Your task to perform on an android device: stop showing notifications on the lock screen Image 0: 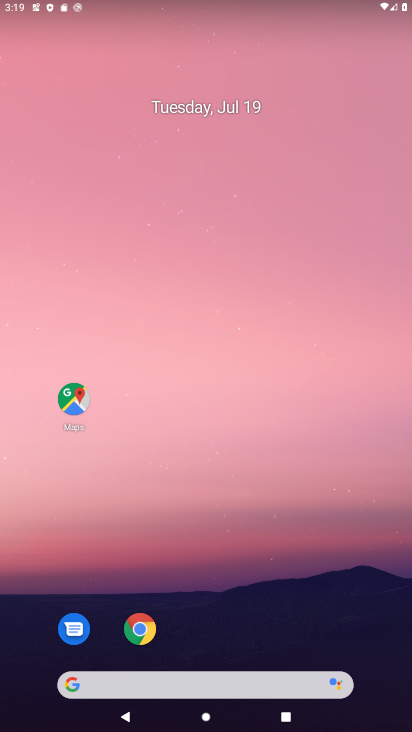
Step 0: drag from (195, 625) to (152, 124)
Your task to perform on an android device: stop showing notifications on the lock screen Image 1: 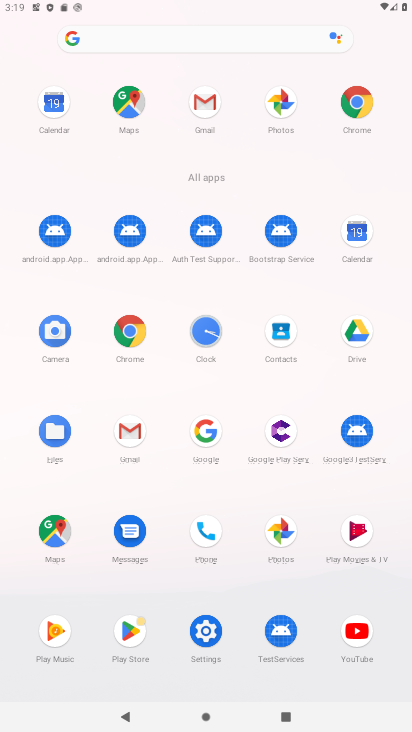
Step 1: click (192, 634)
Your task to perform on an android device: stop showing notifications on the lock screen Image 2: 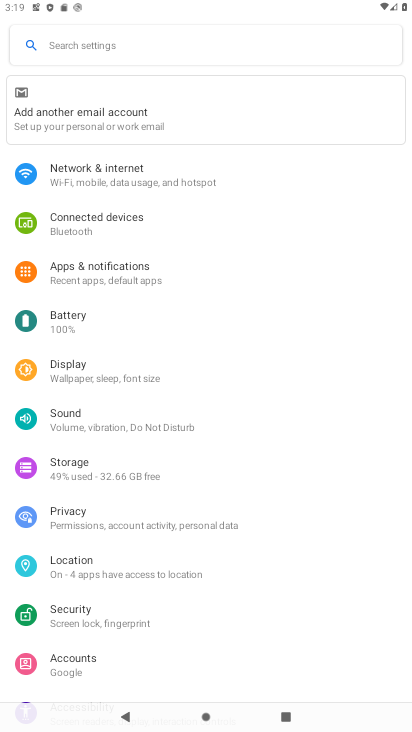
Step 2: click (84, 516)
Your task to perform on an android device: stop showing notifications on the lock screen Image 3: 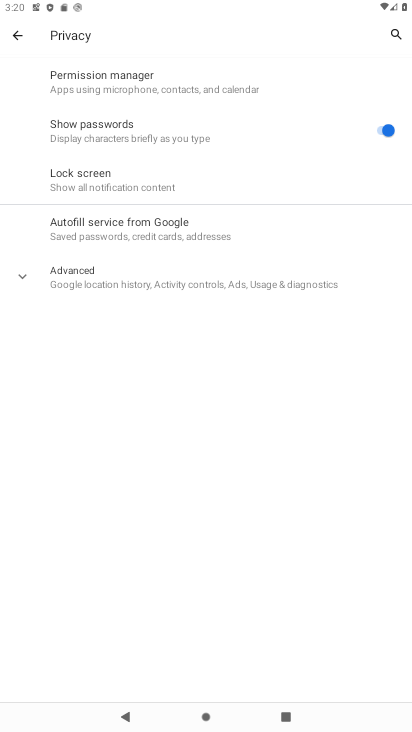
Step 3: click (86, 278)
Your task to perform on an android device: stop showing notifications on the lock screen Image 4: 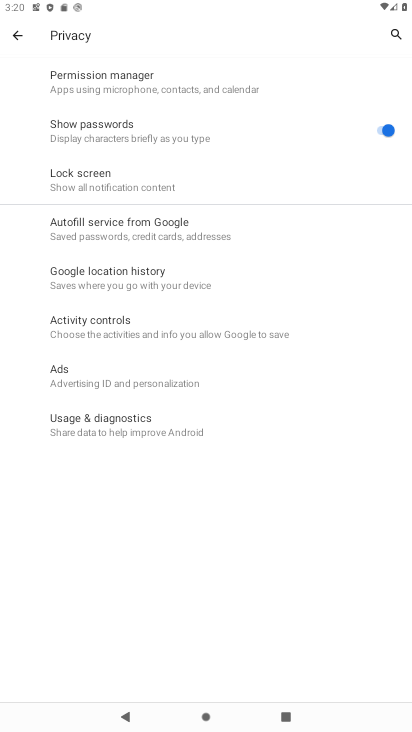
Step 4: click (62, 163)
Your task to perform on an android device: stop showing notifications on the lock screen Image 5: 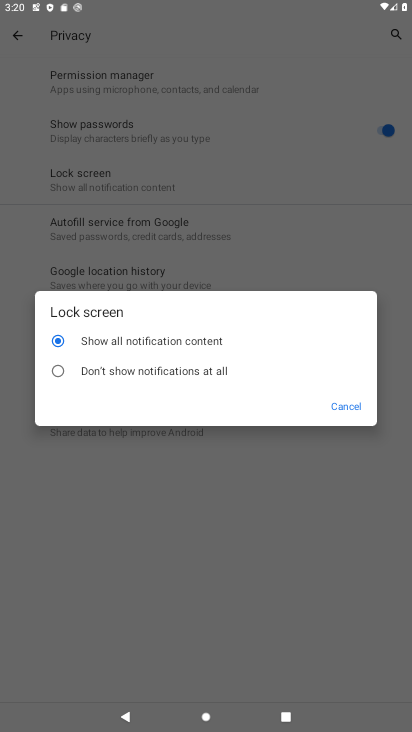
Step 5: click (124, 363)
Your task to perform on an android device: stop showing notifications on the lock screen Image 6: 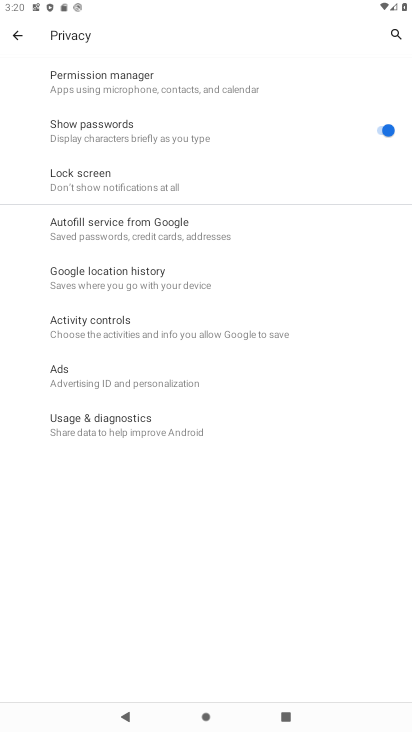
Step 6: task complete